Your task to perform on an android device: Show me the alarms in the clock app Image 0: 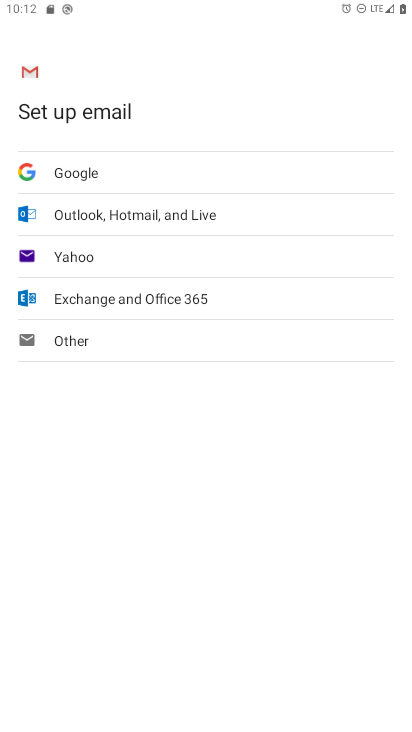
Step 0: drag from (245, 712) to (210, 272)
Your task to perform on an android device: Show me the alarms in the clock app Image 1: 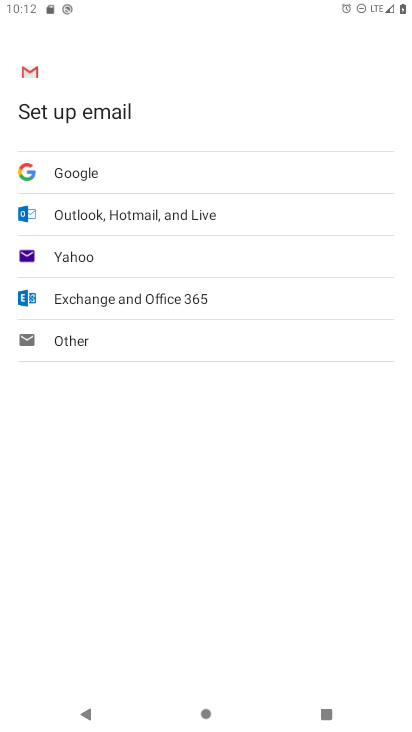
Step 1: press home button
Your task to perform on an android device: Show me the alarms in the clock app Image 2: 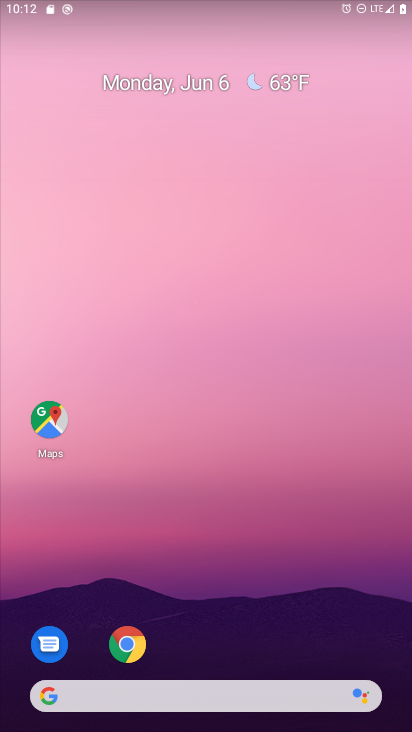
Step 2: drag from (226, 694) to (131, 38)
Your task to perform on an android device: Show me the alarms in the clock app Image 3: 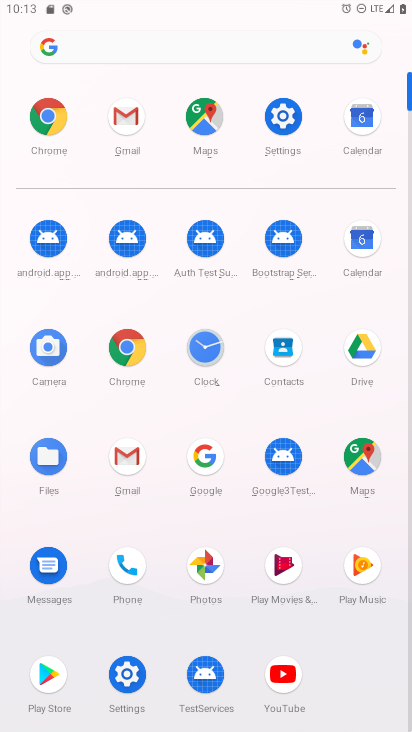
Step 3: click (204, 336)
Your task to perform on an android device: Show me the alarms in the clock app Image 4: 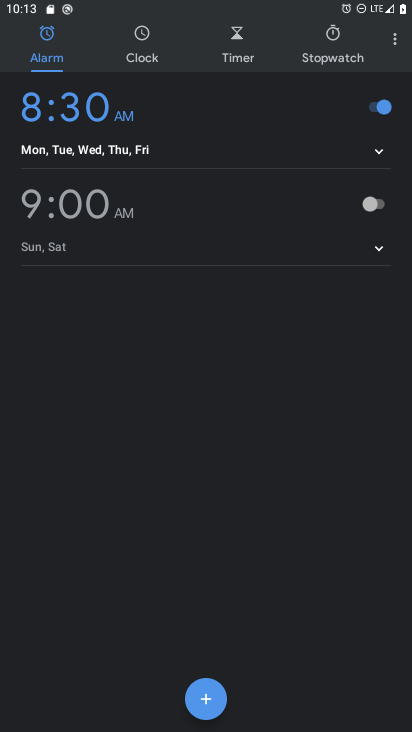
Step 4: click (163, 213)
Your task to perform on an android device: Show me the alarms in the clock app Image 5: 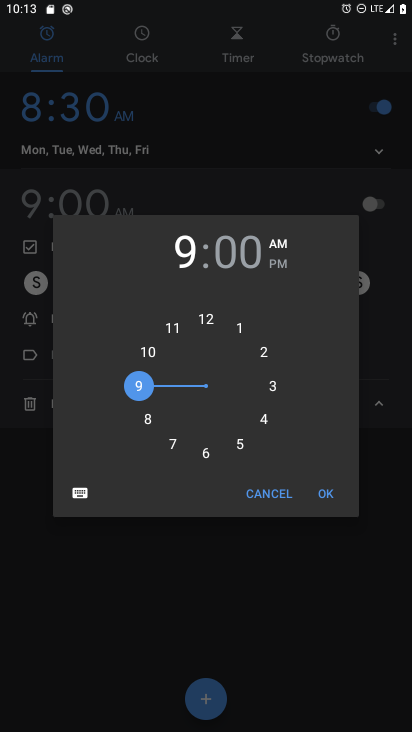
Step 5: click (319, 491)
Your task to perform on an android device: Show me the alarms in the clock app Image 6: 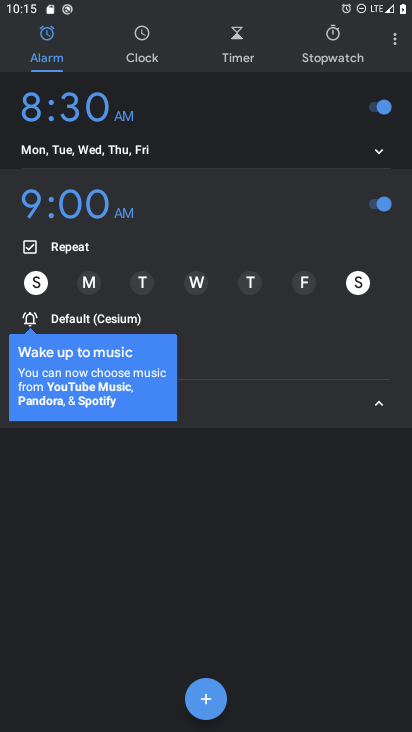
Step 6: task complete